Your task to perform on an android device: toggle airplane mode Image 0: 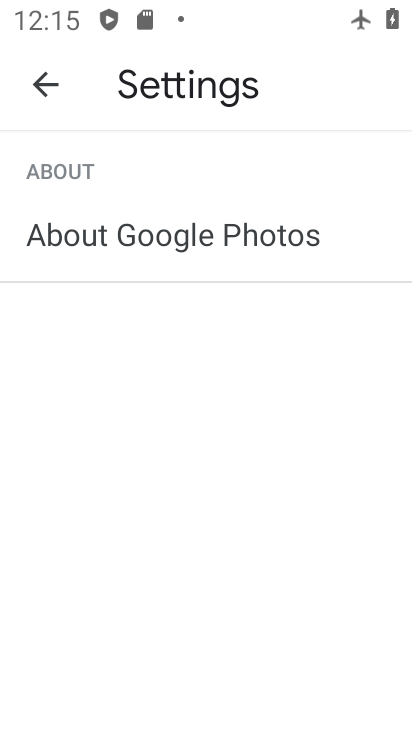
Step 0: press home button
Your task to perform on an android device: toggle airplane mode Image 1: 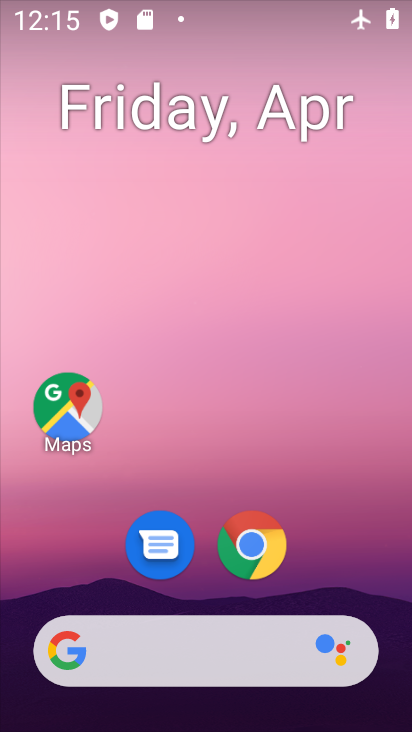
Step 1: drag from (329, 573) to (271, 109)
Your task to perform on an android device: toggle airplane mode Image 2: 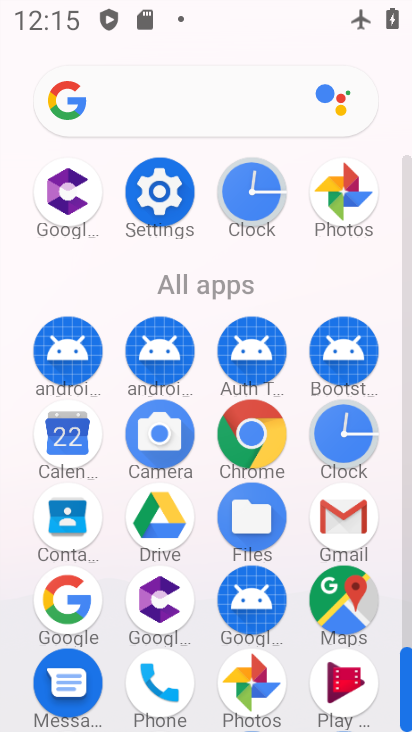
Step 2: click (158, 188)
Your task to perform on an android device: toggle airplane mode Image 3: 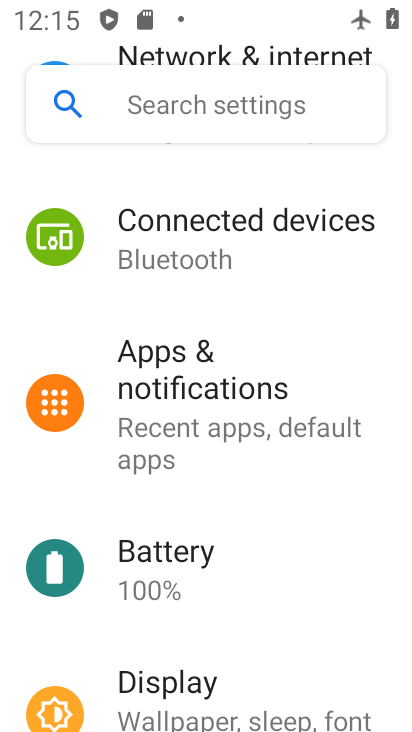
Step 3: drag from (225, 199) to (191, 578)
Your task to perform on an android device: toggle airplane mode Image 4: 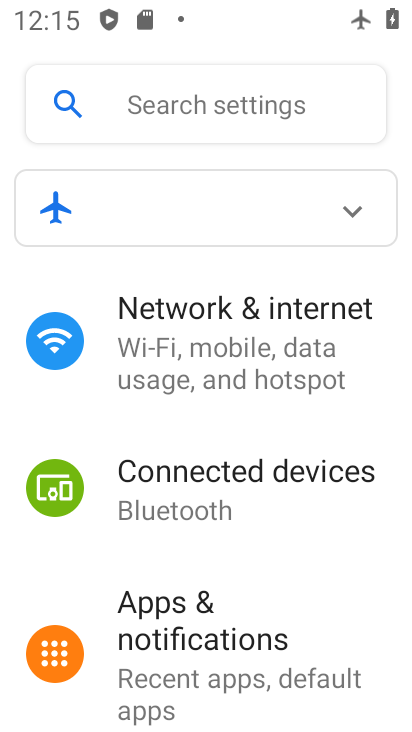
Step 4: click (212, 380)
Your task to perform on an android device: toggle airplane mode Image 5: 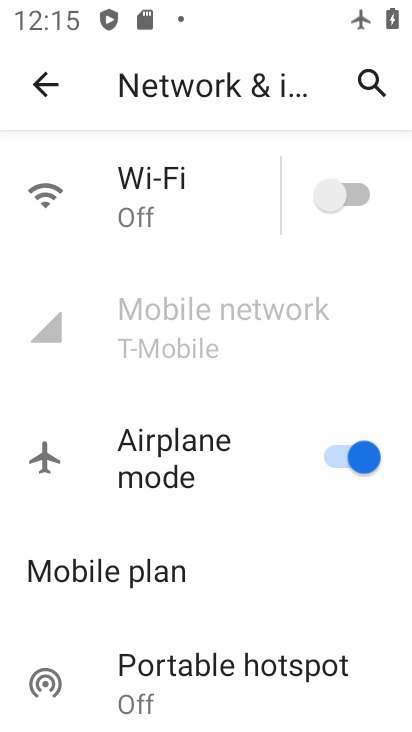
Step 5: click (333, 458)
Your task to perform on an android device: toggle airplane mode Image 6: 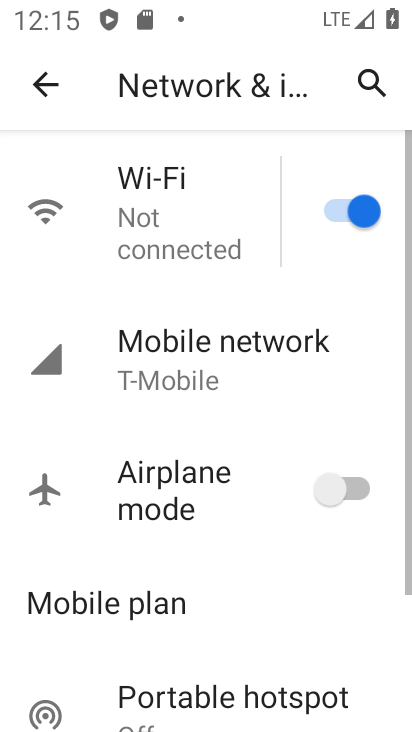
Step 6: task complete